Your task to perform on an android device: Show me recent news Image 0: 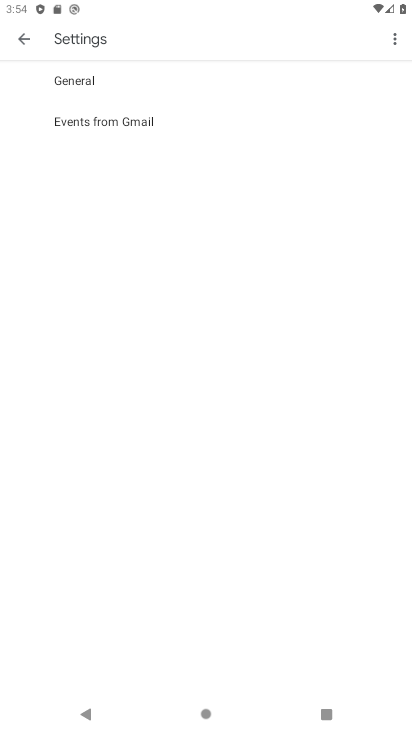
Step 0: press home button
Your task to perform on an android device: Show me recent news Image 1: 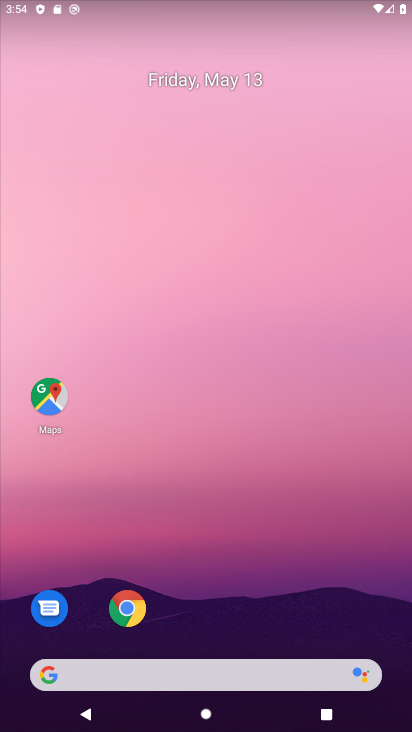
Step 1: drag from (198, 688) to (185, 28)
Your task to perform on an android device: Show me recent news Image 2: 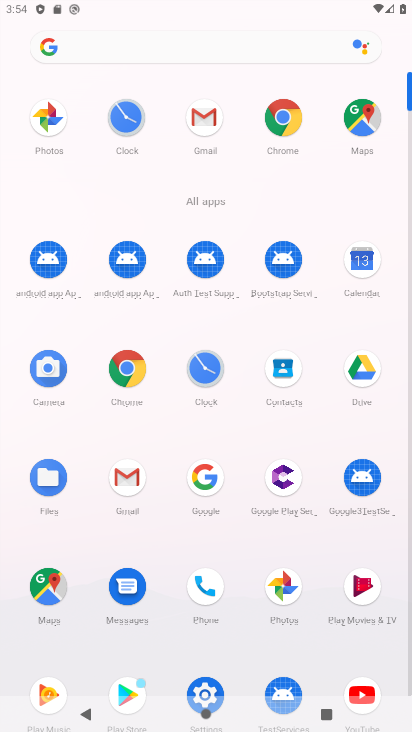
Step 2: click (116, 370)
Your task to perform on an android device: Show me recent news Image 3: 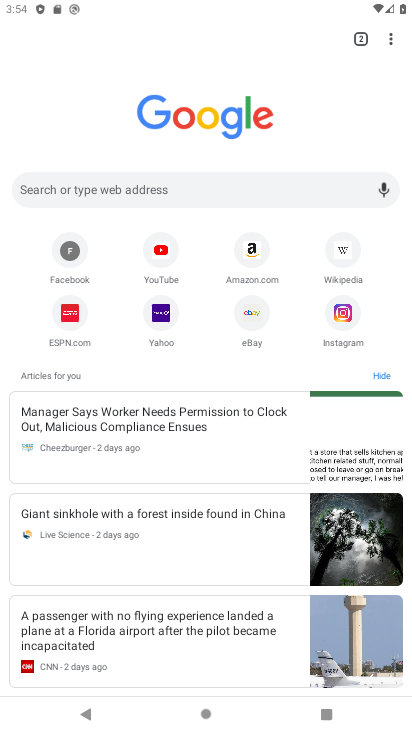
Step 3: click (387, 35)
Your task to perform on an android device: Show me recent news Image 4: 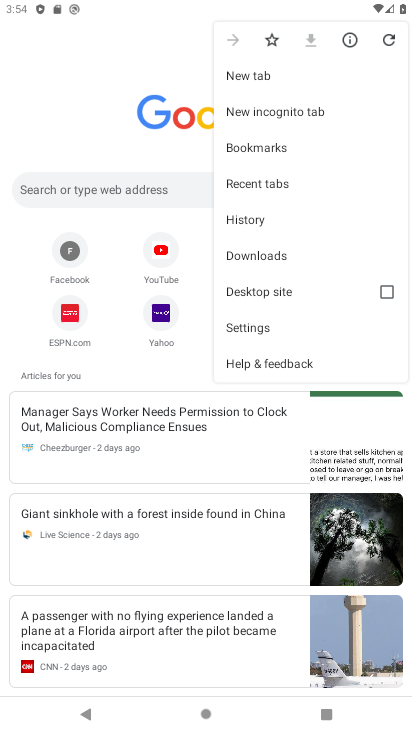
Step 4: click (177, 192)
Your task to perform on an android device: Show me recent news Image 5: 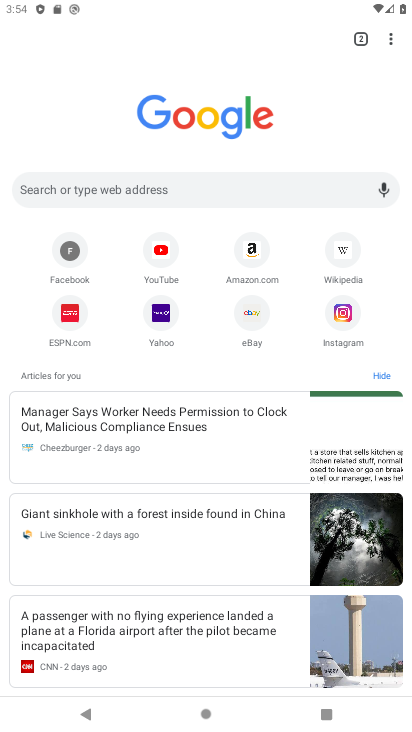
Step 5: click (177, 192)
Your task to perform on an android device: Show me recent news Image 6: 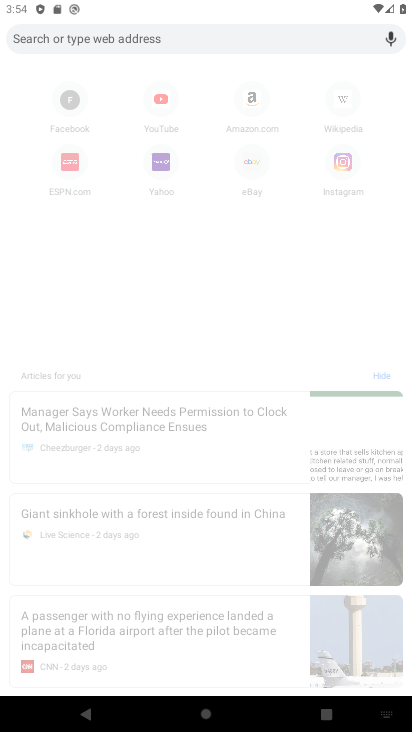
Step 6: type "recent news"
Your task to perform on an android device: Show me recent news Image 7: 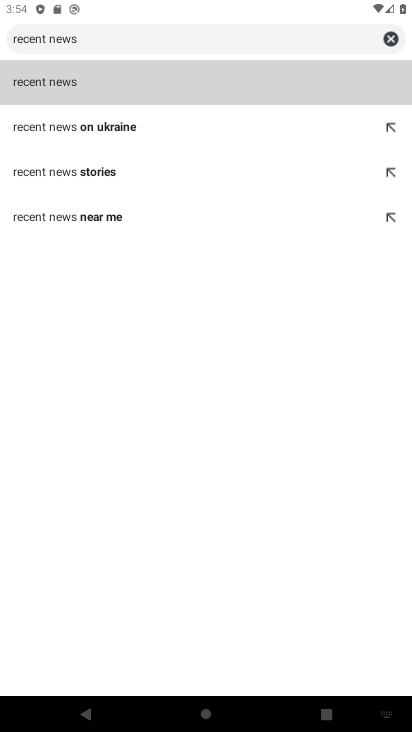
Step 7: click (96, 77)
Your task to perform on an android device: Show me recent news Image 8: 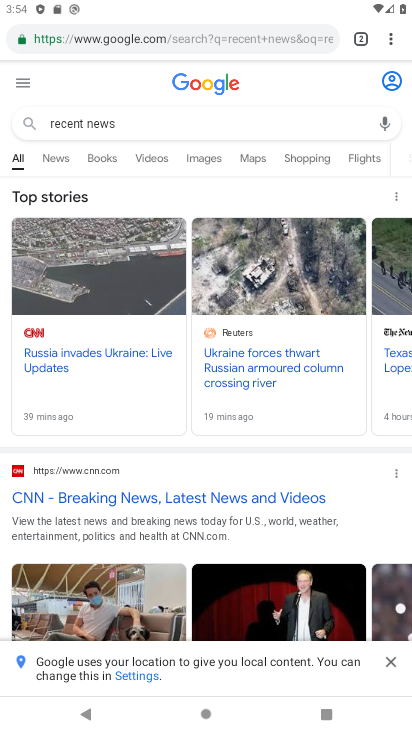
Step 8: task complete